Your task to perform on an android device: See recent photos Image 0: 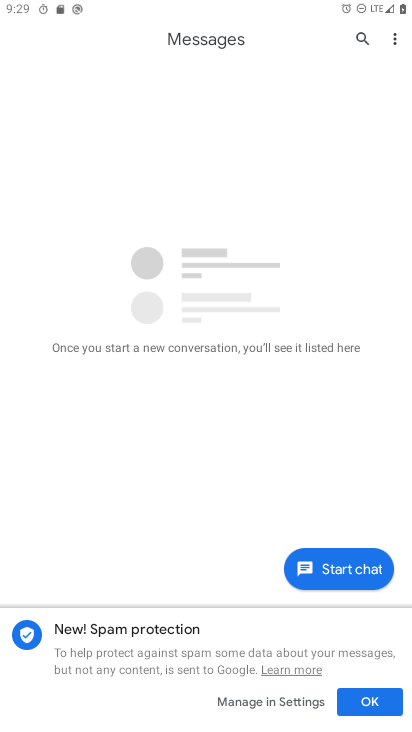
Step 0: press home button
Your task to perform on an android device: See recent photos Image 1: 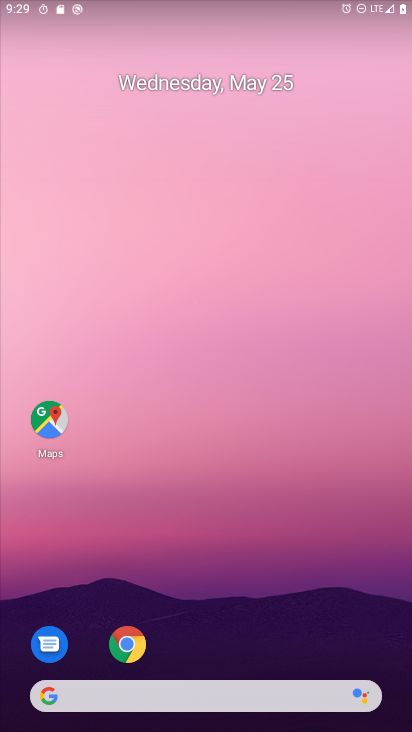
Step 1: drag from (343, 624) to (331, 125)
Your task to perform on an android device: See recent photos Image 2: 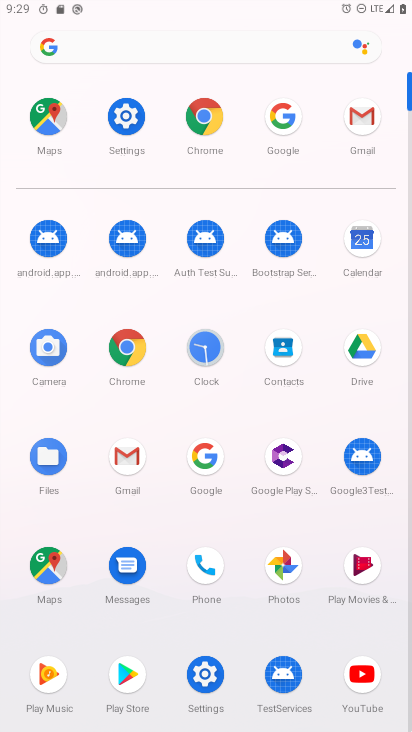
Step 2: click (285, 562)
Your task to perform on an android device: See recent photos Image 3: 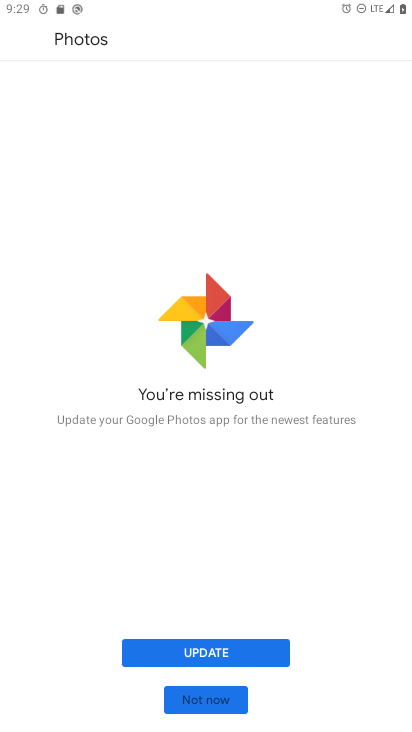
Step 3: click (214, 645)
Your task to perform on an android device: See recent photos Image 4: 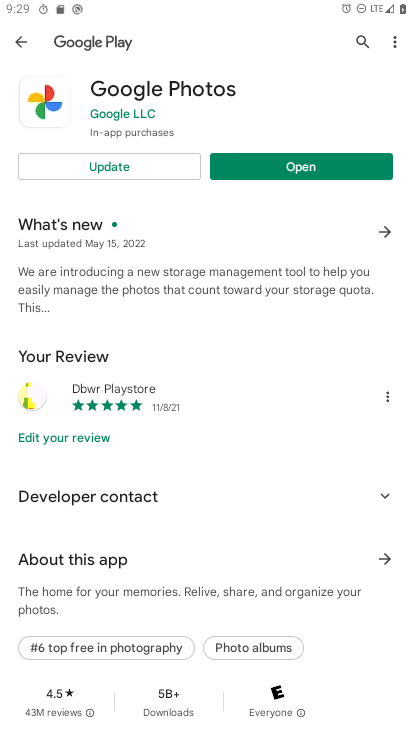
Step 4: click (115, 157)
Your task to perform on an android device: See recent photos Image 5: 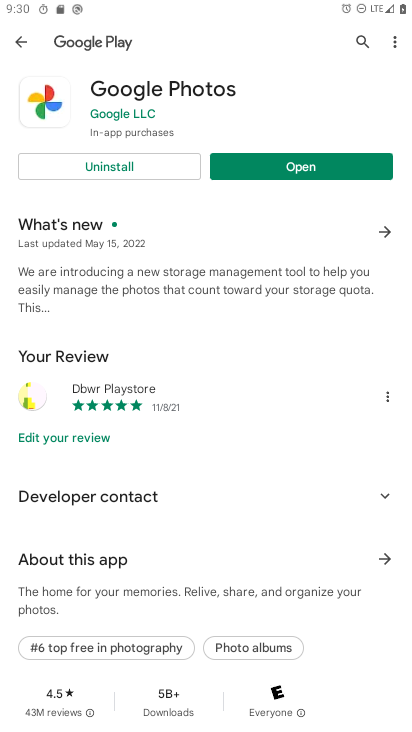
Step 5: click (325, 161)
Your task to perform on an android device: See recent photos Image 6: 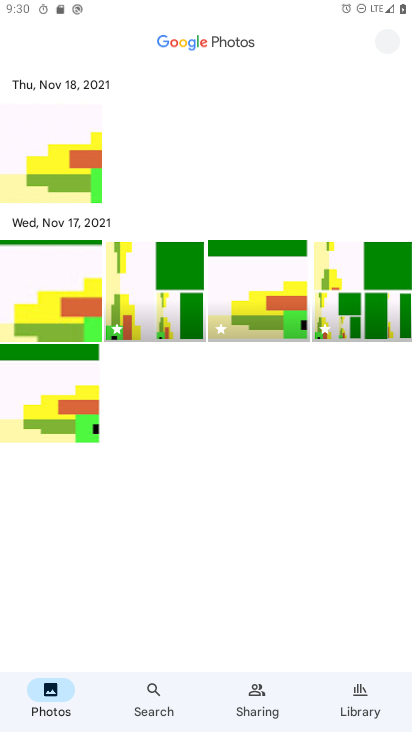
Step 6: click (58, 167)
Your task to perform on an android device: See recent photos Image 7: 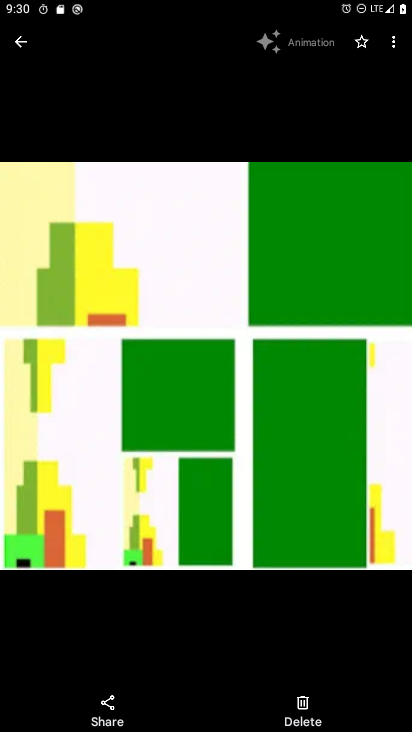
Step 7: task complete